Your task to perform on an android device: turn on notifications settings in the gmail app Image 0: 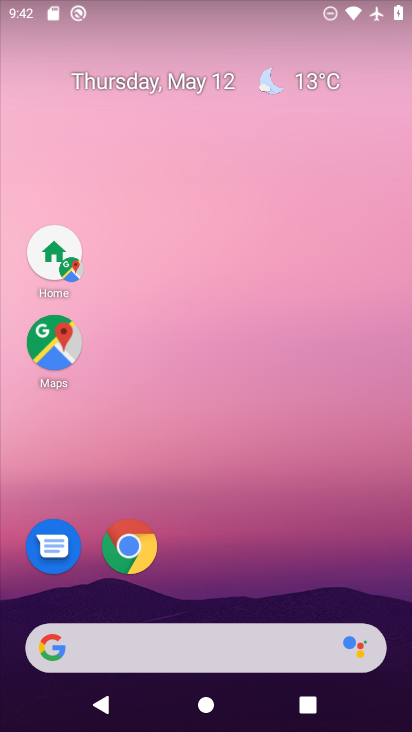
Step 0: drag from (201, 654) to (270, 125)
Your task to perform on an android device: turn on notifications settings in the gmail app Image 1: 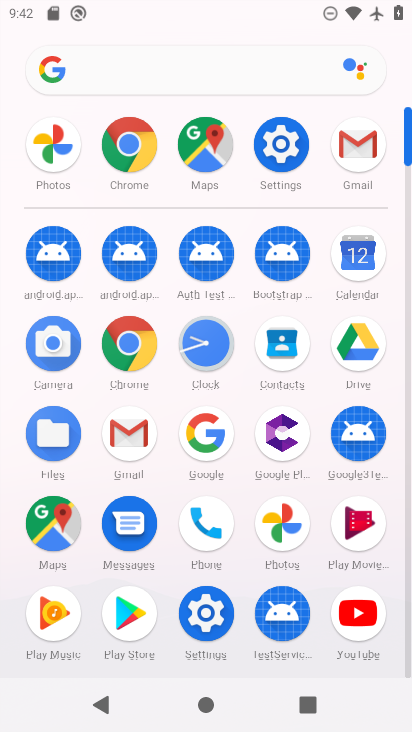
Step 1: click (352, 162)
Your task to perform on an android device: turn on notifications settings in the gmail app Image 2: 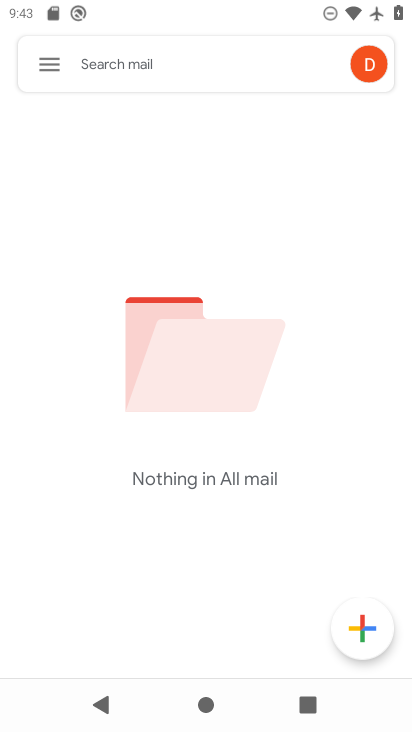
Step 2: click (54, 67)
Your task to perform on an android device: turn on notifications settings in the gmail app Image 3: 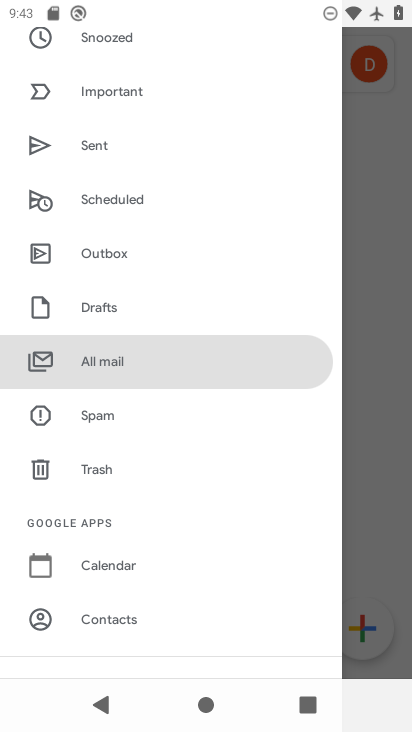
Step 3: drag from (165, 592) to (240, 203)
Your task to perform on an android device: turn on notifications settings in the gmail app Image 4: 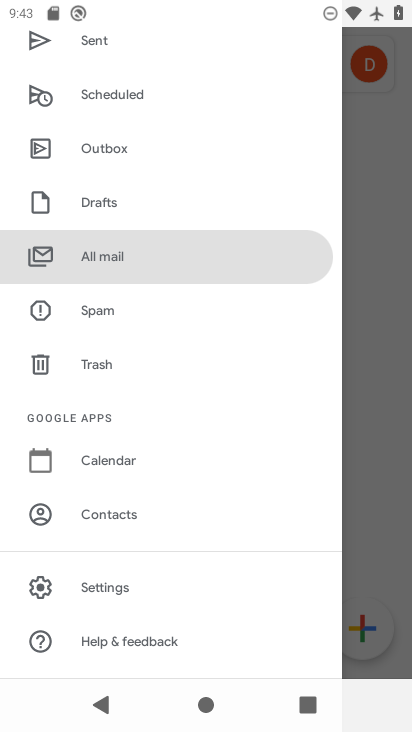
Step 4: click (123, 592)
Your task to perform on an android device: turn on notifications settings in the gmail app Image 5: 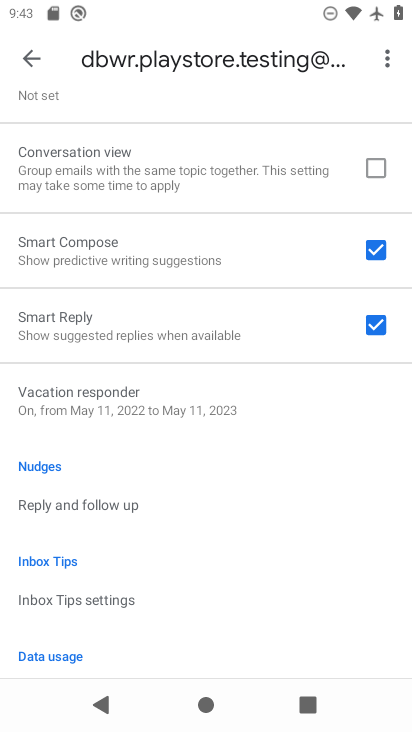
Step 5: drag from (248, 219) to (205, 617)
Your task to perform on an android device: turn on notifications settings in the gmail app Image 6: 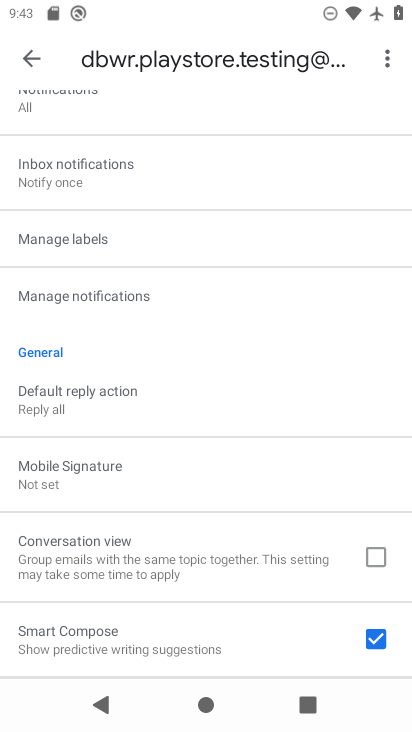
Step 6: drag from (250, 187) to (214, 491)
Your task to perform on an android device: turn on notifications settings in the gmail app Image 7: 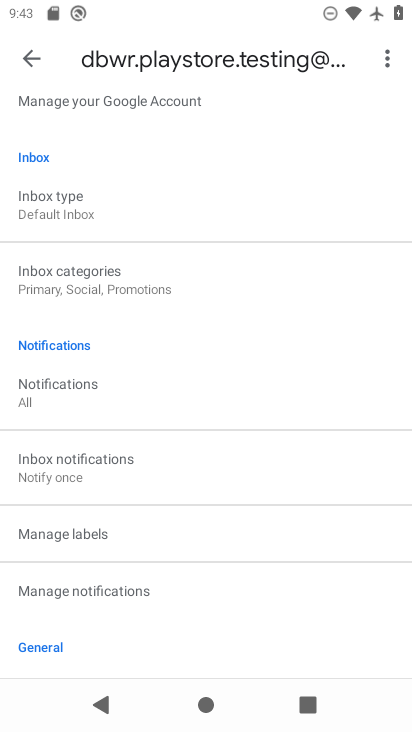
Step 7: click (60, 405)
Your task to perform on an android device: turn on notifications settings in the gmail app Image 8: 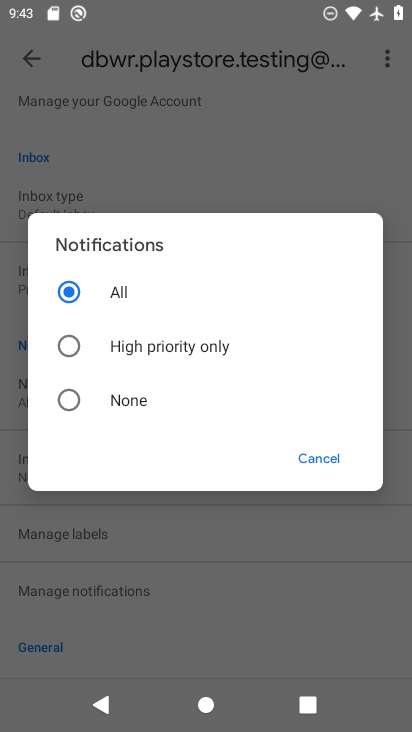
Step 8: task complete